Your task to perform on an android device: Is it going to rain tomorrow? Image 0: 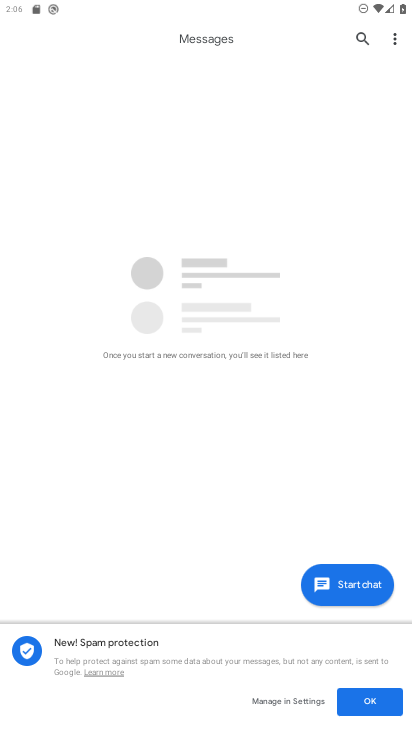
Step 0: press home button
Your task to perform on an android device: Is it going to rain tomorrow? Image 1: 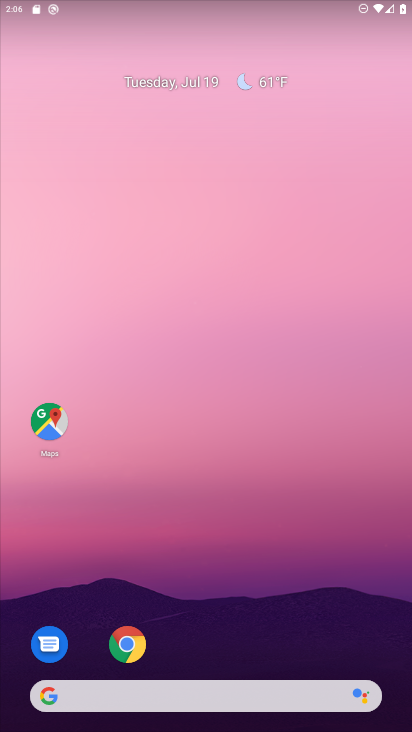
Step 1: click (344, 9)
Your task to perform on an android device: Is it going to rain tomorrow? Image 2: 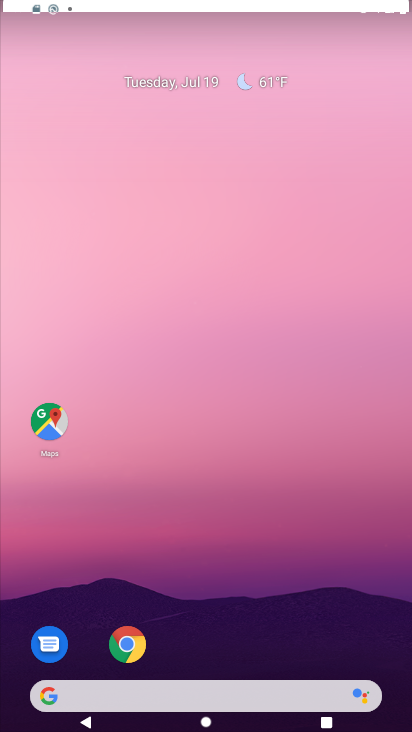
Step 2: drag from (373, 405) to (361, 193)
Your task to perform on an android device: Is it going to rain tomorrow? Image 3: 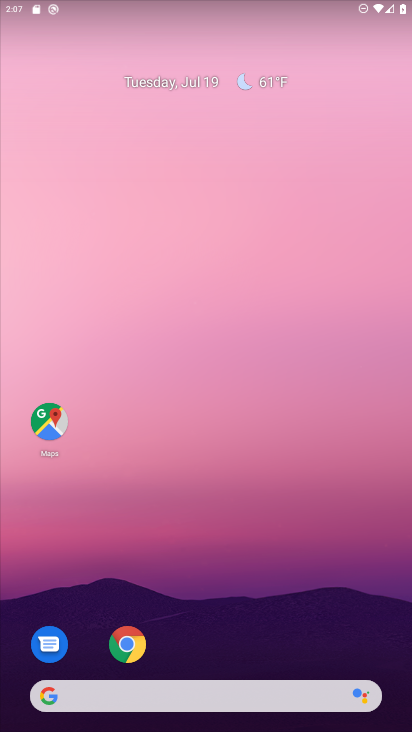
Step 3: drag from (389, 665) to (330, 4)
Your task to perform on an android device: Is it going to rain tomorrow? Image 4: 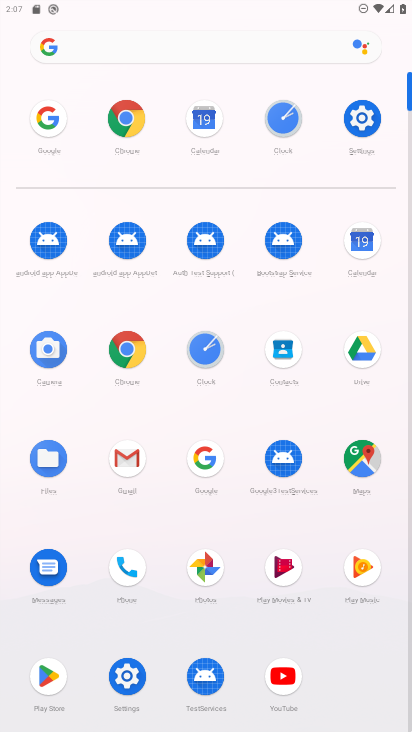
Step 4: click (204, 453)
Your task to perform on an android device: Is it going to rain tomorrow? Image 5: 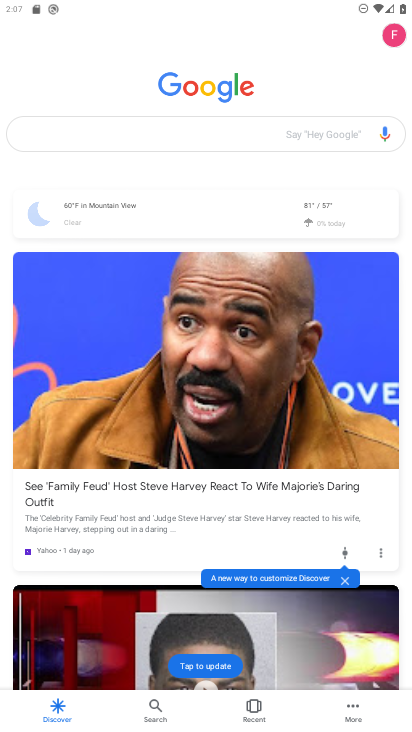
Step 5: click (327, 200)
Your task to perform on an android device: Is it going to rain tomorrow? Image 6: 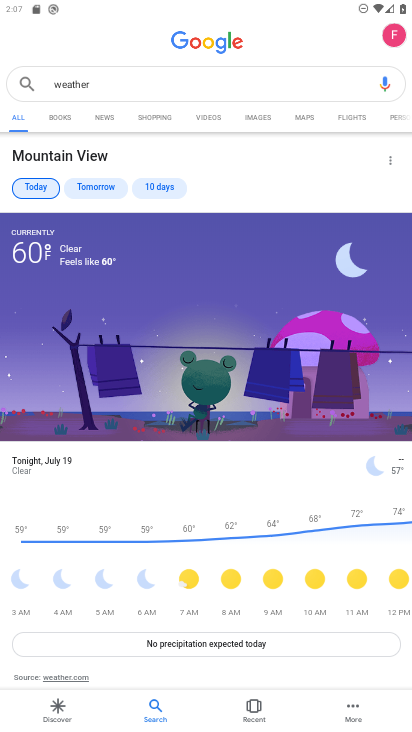
Step 6: task complete